Your task to perform on an android device: check storage Image 0: 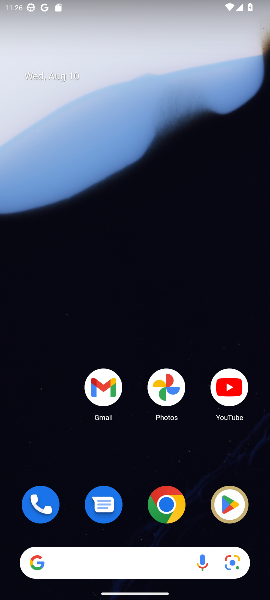
Step 0: drag from (48, 444) to (73, 34)
Your task to perform on an android device: check storage Image 1: 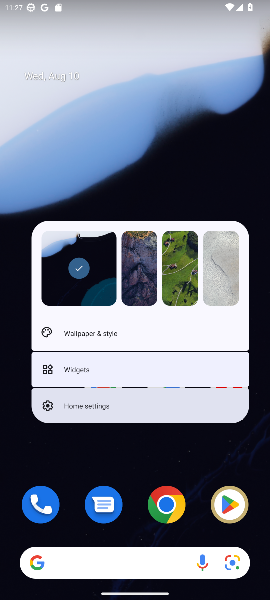
Step 1: drag from (14, 429) to (73, 44)
Your task to perform on an android device: check storage Image 2: 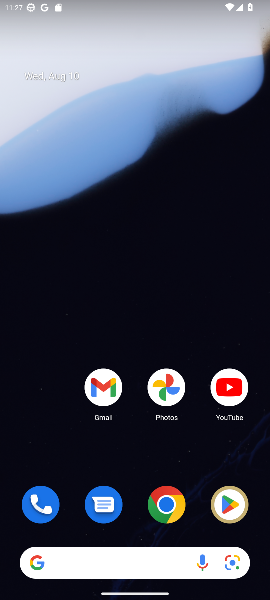
Step 2: drag from (61, 440) to (48, 47)
Your task to perform on an android device: check storage Image 3: 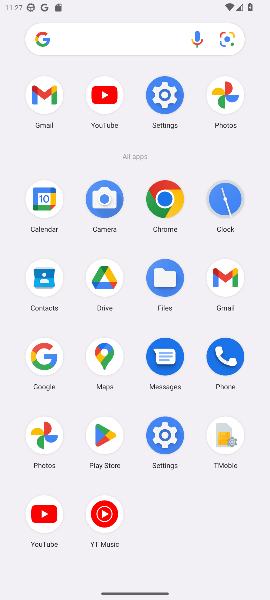
Step 3: click (168, 92)
Your task to perform on an android device: check storage Image 4: 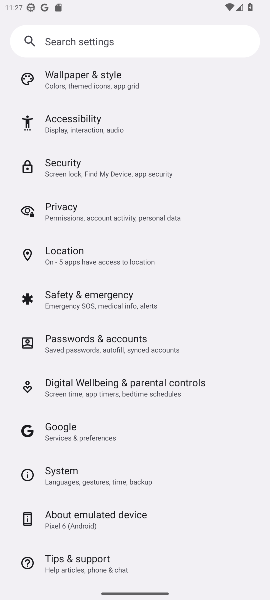
Step 4: drag from (35, 364) to (37, 598)
Your task to perform on an android device: check storage Image 5: 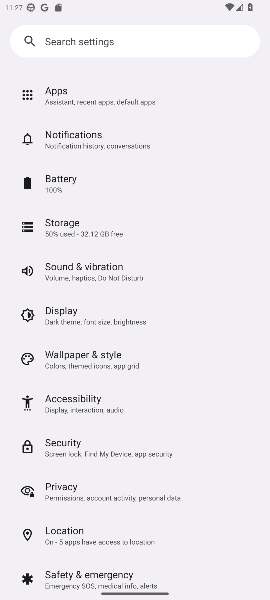
Step 5: click (76, 230)
Your task to perform on an android device: check storage Image 6: 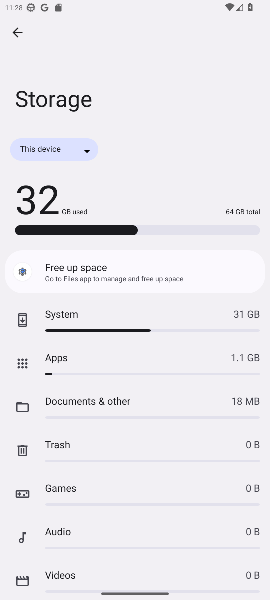
Step 6: task complete